Your task to perform on an android device: toggle javascript in the chrome app Image 0: 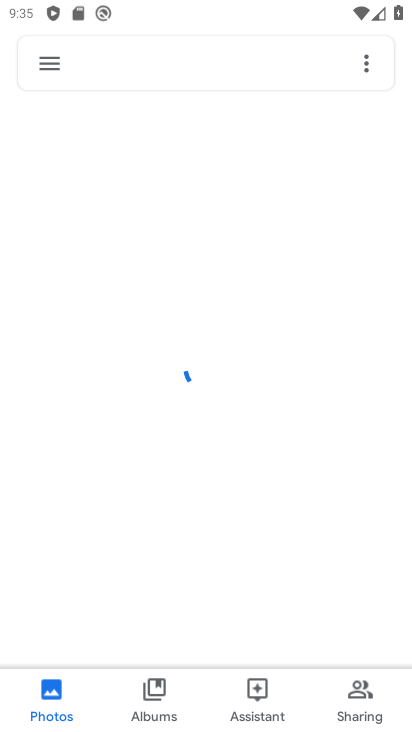
Step 0: press home button
Your task to perform on an android device: toggle javascript in the chrome app Image 1: 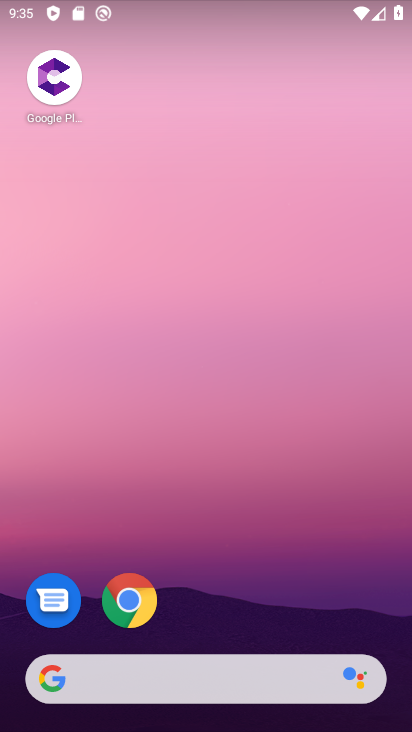
Step 1: click (126, 600)
Your task to perform on an android device: toggle javascript in the chrome app Image 2: 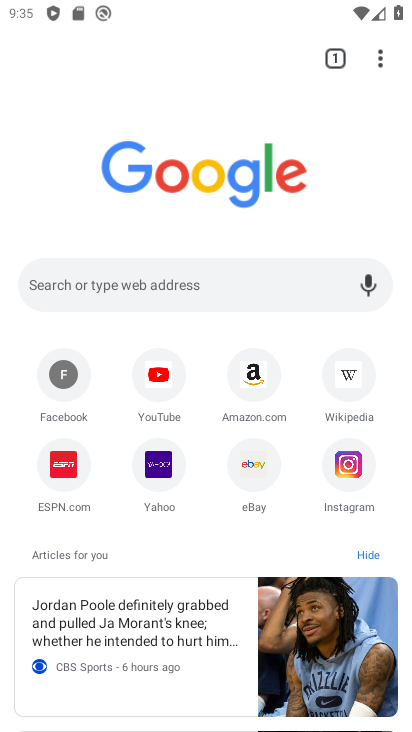
Step 2: drag from (379, 55) to (242, 487)
Your task to perform on an android device: toggle javascript in the chrome app Image 3: 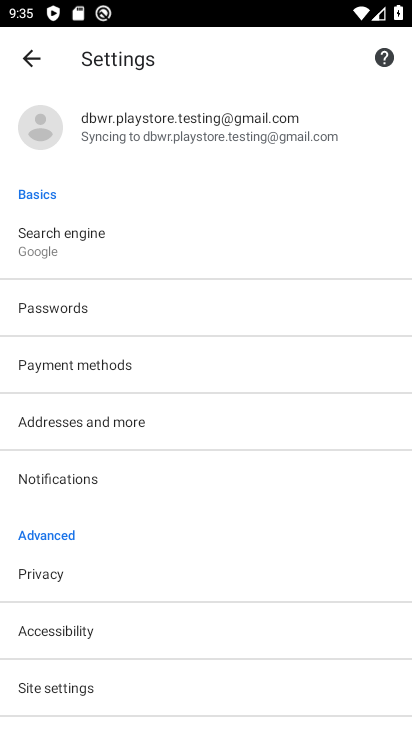
Step 3: drag from (126, 670) to (184, 374)
Your task to perform on an android device: toggle javascript in the chrome app Image 4: 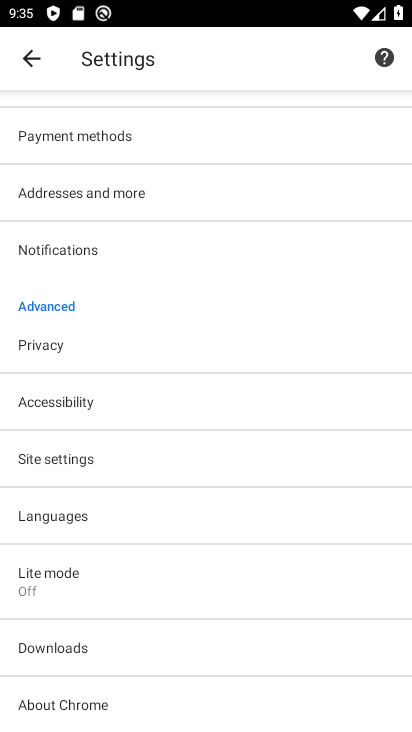
Step 4: click (89, 478)
Your task to perform on an android device: toggle javascript in the chrome app Image 5: 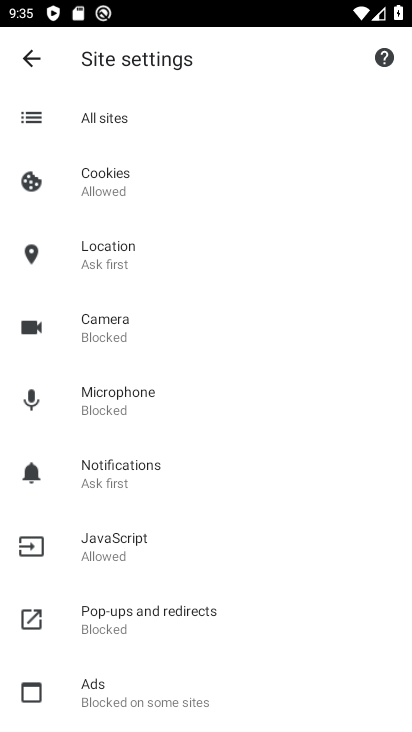
Step 5: click (138, 568)
Your task to perform on an android device: toggle javascript in the chrome app Image 6: 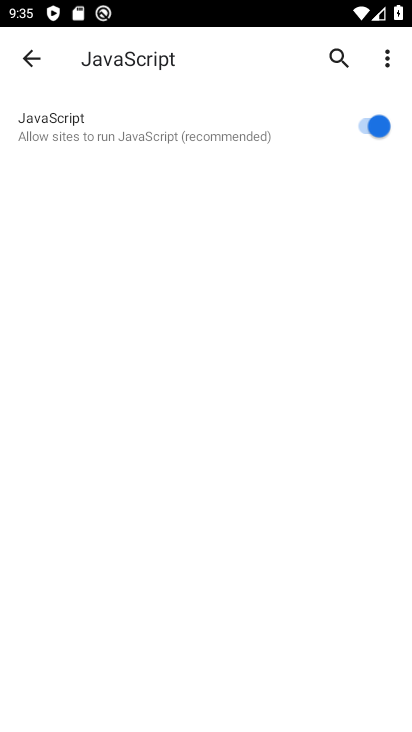
Step 6: click (377, 127)
Your task to perform on an android device: toggle javascript in the chrome app Image 7: 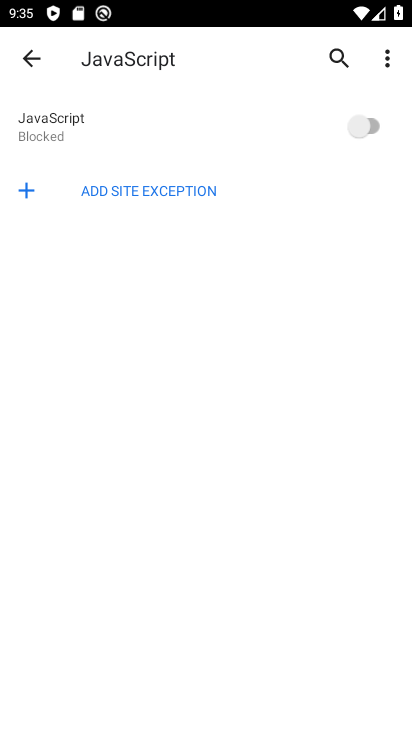
Step 7: task complete